Your task to perform on an android device: Go to sound settings Image 0: 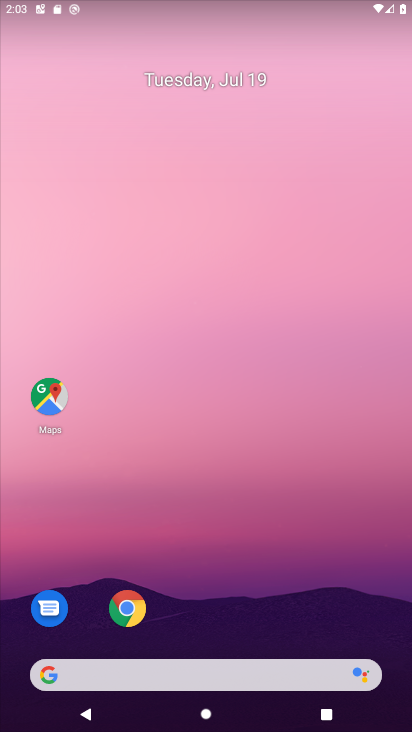
Step 0: drag from (226, 645) to (246, 122)
Your task to perform on an android device: Go to sound settings Image 1: 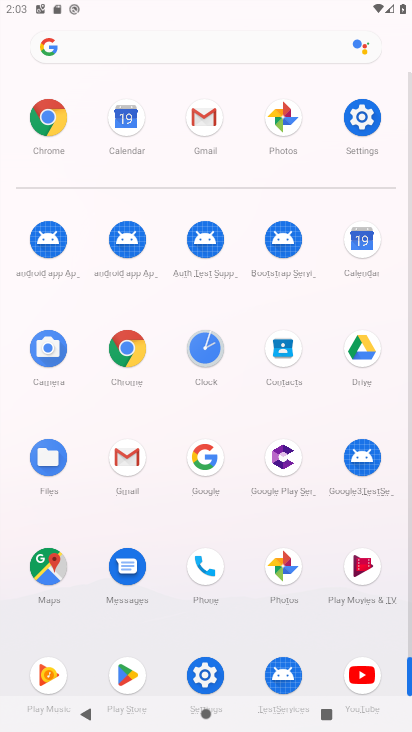
Step 1: click (353, 130)
Your task to perform on an android device: Go to sound settings Image 2: 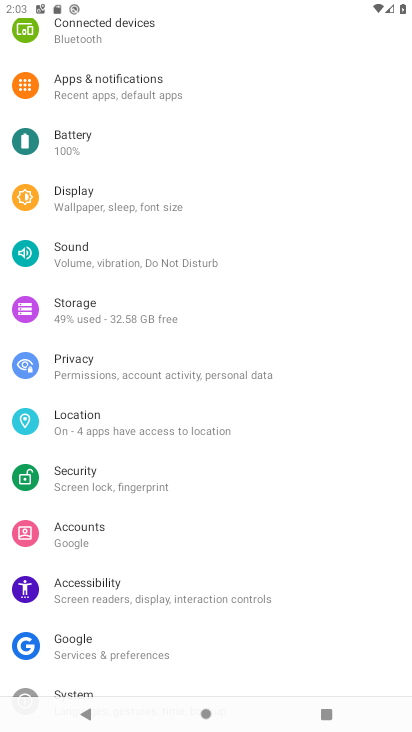
Step 2: click (111, 258)
Your task to perform on an android device: Go to sound settings Image 3: 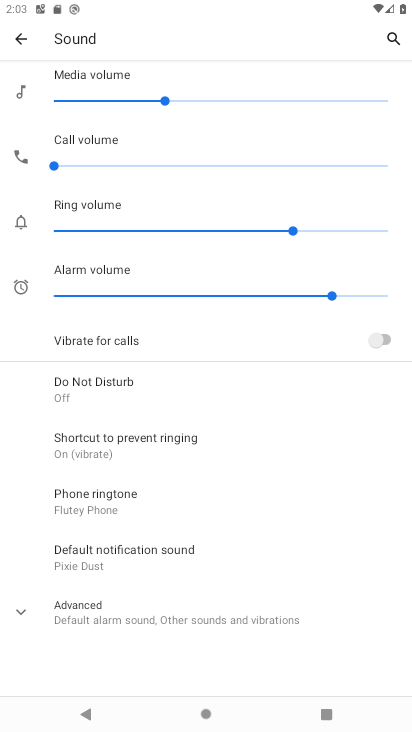
Step 3: task complete